Your task to perform on an android device: Open settings on Google Maps Image 0: 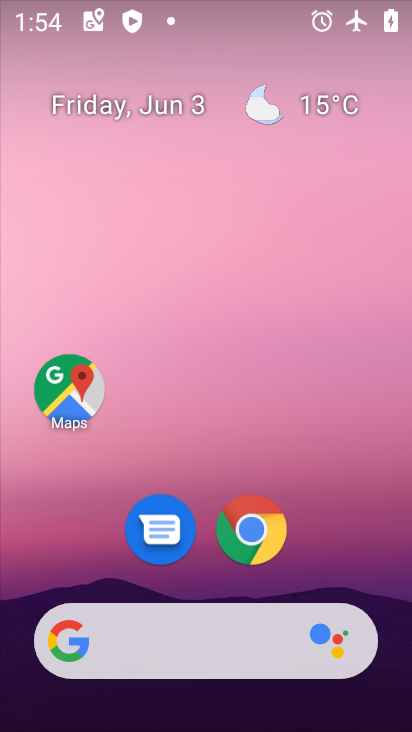
Step 0: drag from (372, 563) to (361, 183)
Your task to perform on an android device: Open settings on Google Maps Image 1: 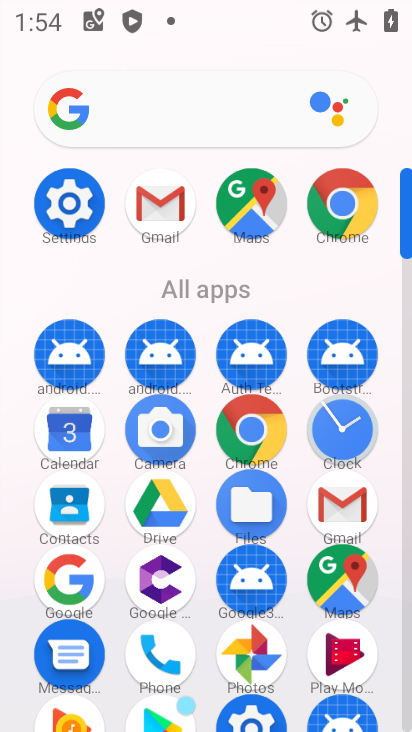
Step 1: click (352, 580)
Your task to perform on an android device: Open settings on Google Maps Image 2: 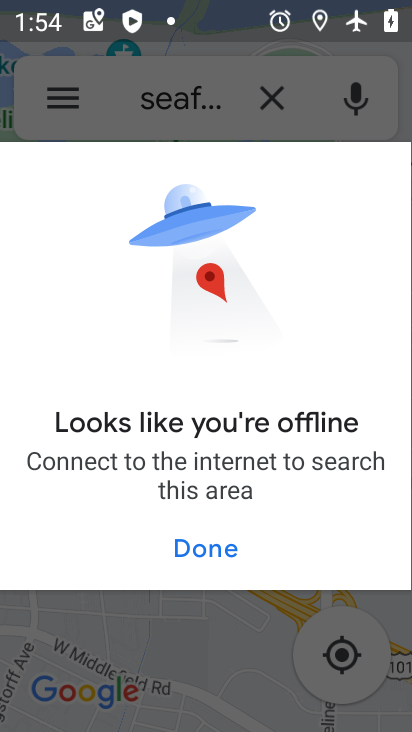
Step 2: press back button
Your task to perform on an android device: Open settings on Google Maps Image 3: 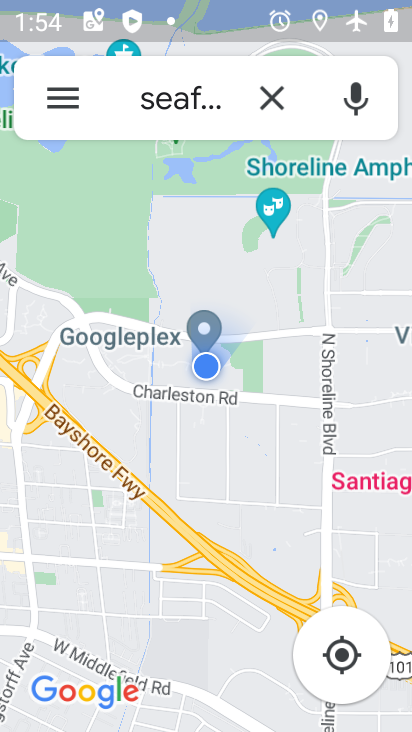
Step 3: click (63, 102)
Your task to perform on an android device: Open settings on Google Maps Image 4: 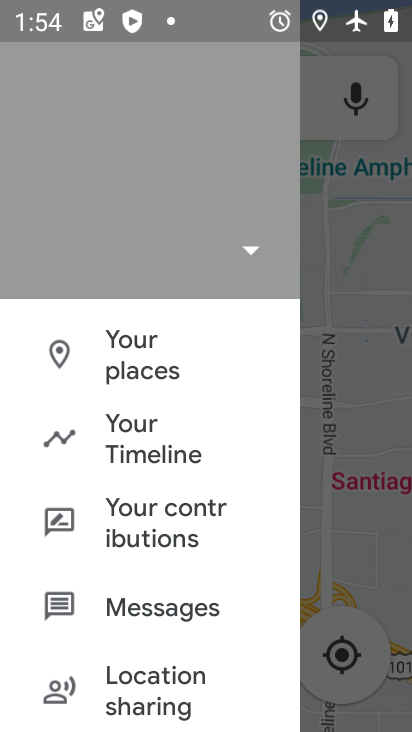
Step 4: drag from (245, 558) to (241, 318)
Your task to perform on an android device: Open settings on Google Maps Image 5: 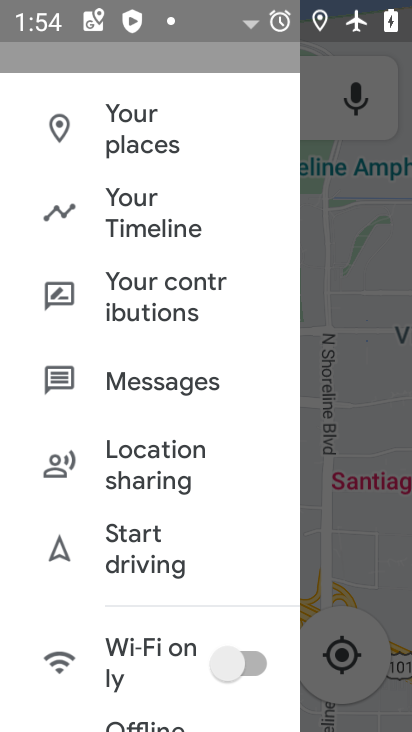
Step 5: drag from (252, 529) to (252, 365)
Your task to perform on an android device: Open settings on Google Maps Image 6: 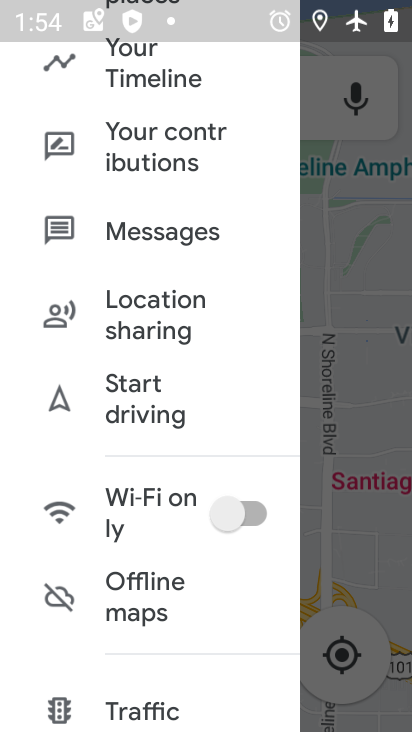
Step 6: drag from (231, 606) to (219, 393)
Your task to perform on an android device: Open settings on Google Maps Image 7: 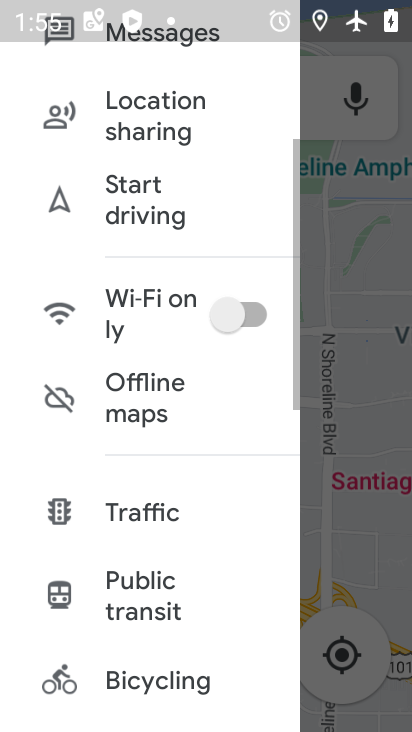
Step 7: drag from (226, 607) to (227, 404)
Your task to perform on an android device: Open settings on Google Maps Image 8: 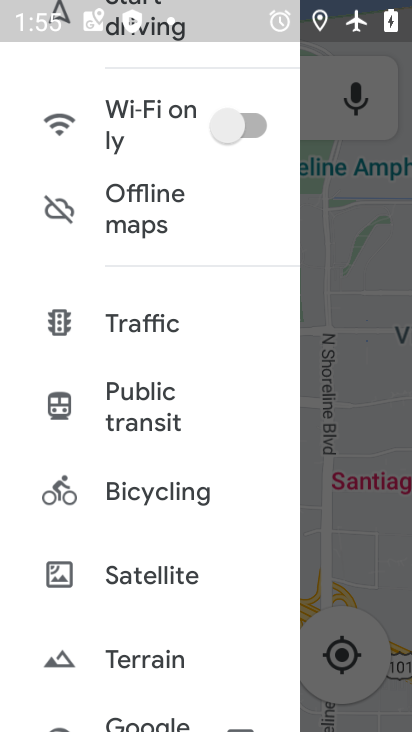
Step 8: drag from (240, 627) to (238, 434)
Your task to perform on an android device: Open settings on Google Maps Image 9: 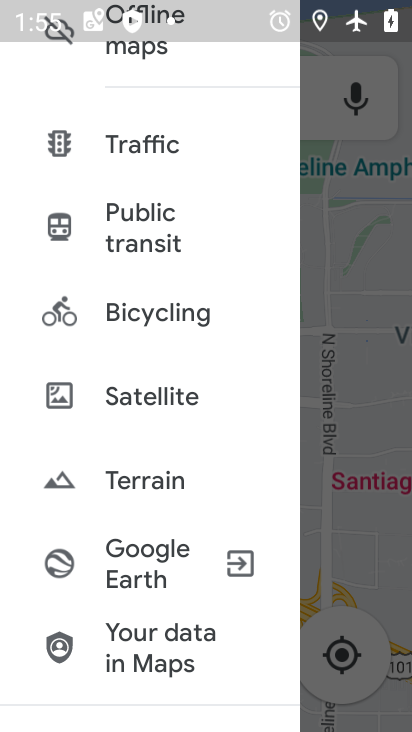
Step 9: drag from (218, 462) to (222, 288)
Your task to perform on an android device: Open settings on Google Maps Image 10: 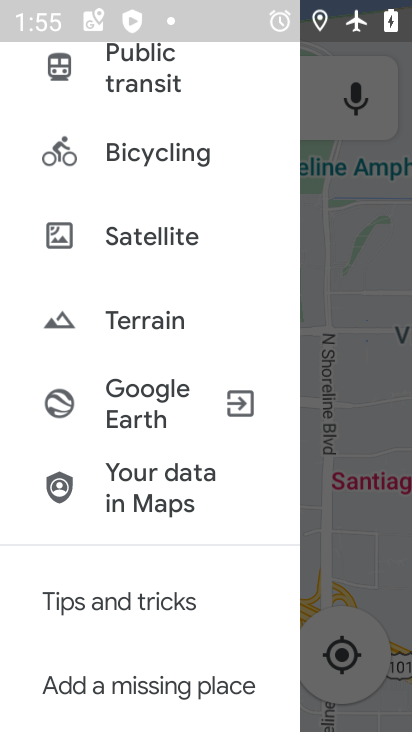
Step 10: drag from (237, 488) to (243, 124)
Your task to perform on an android device: Open settings on Google Maps Image 11: 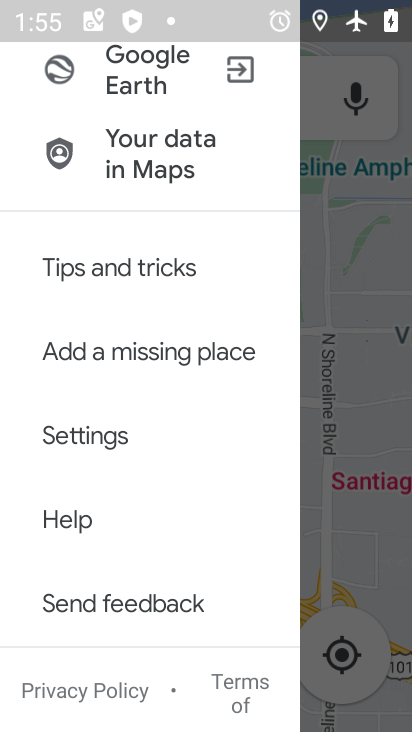
Step 11: click (83, 437)
Your task to perform on an android device: Open settings on Google Maps Image 12: 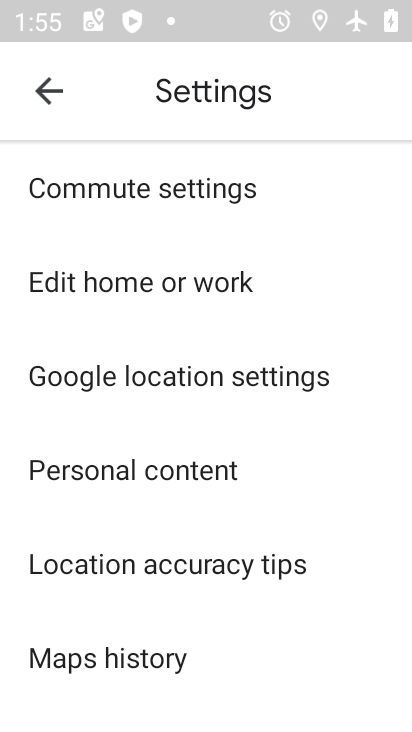
Step 12: task complete